Your task to perform on an android device: turn notification dots off Image 0: 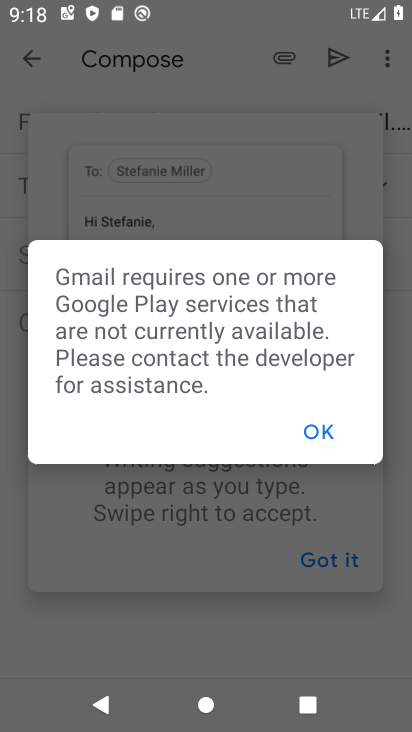
Step 0: click (327, 432)
Your task to perform on an android device: turn notification dots off Image 1: 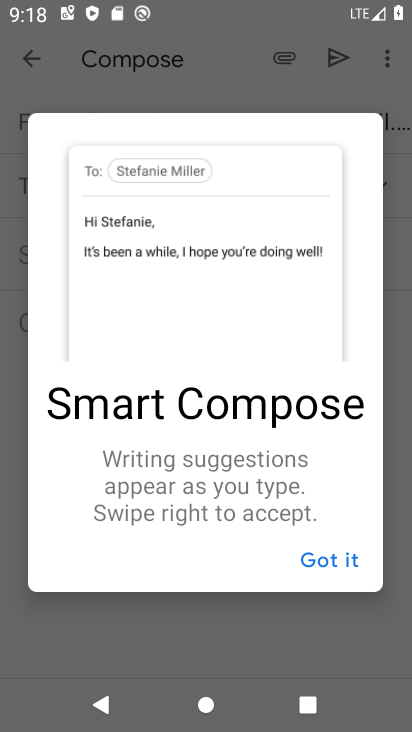
Step 1: press home button
Your task to perform on an android device: turn notification dots off Image 2: 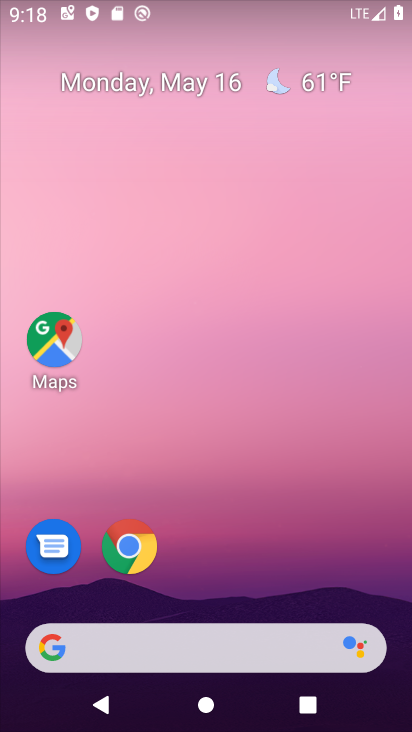
Step 2: drag from (337, 551) to (283, 142)
Your task to perform on an android device: turn notification dots off Image 3: 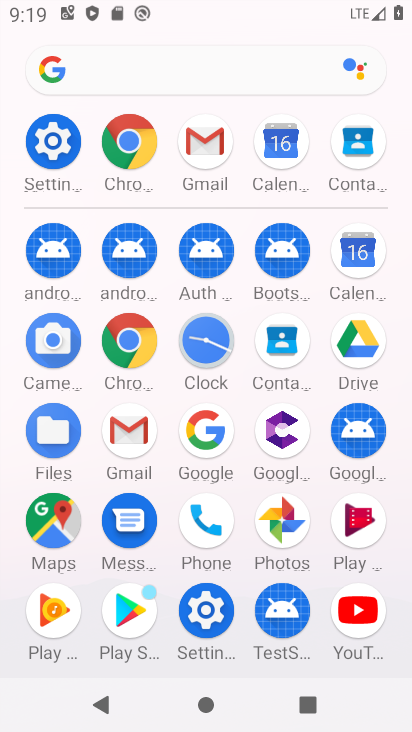
Step 3: click (220, 608)
Your task to perform on an android device: turn notification dots off Image 4: 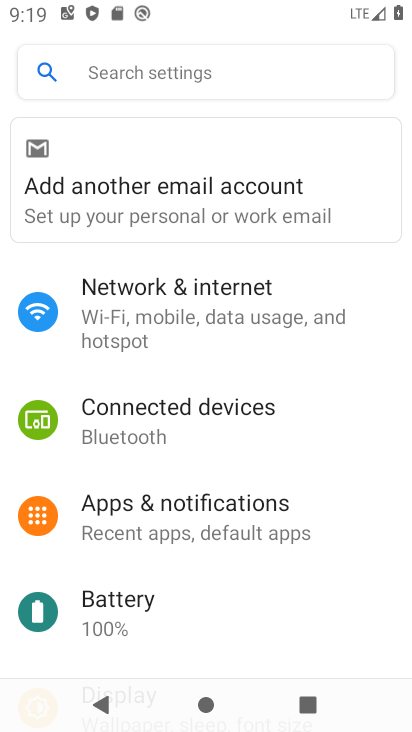
Step 4: click (211, 509)
Your task to perform on an android device: turn notification dots off Image 5: 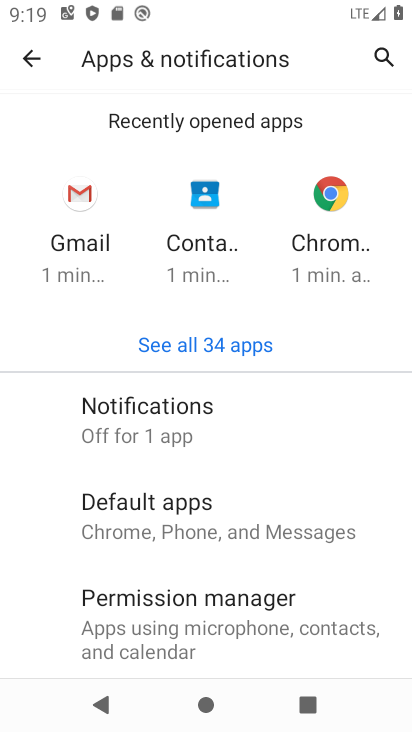
Step 5: click (196, 426)
Your task to perform on an android device: turn notification dots off Image 6: 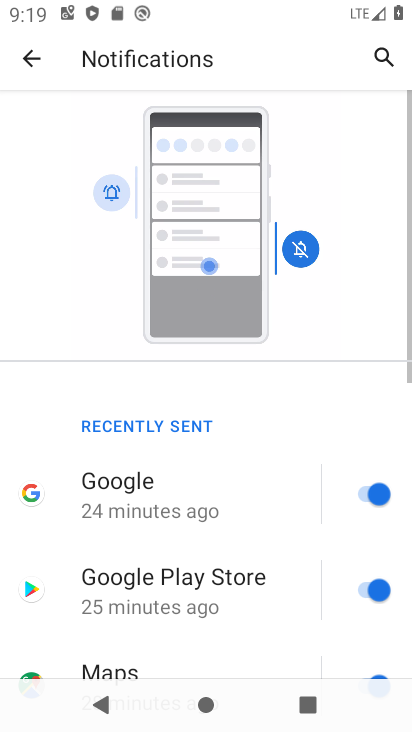
Step 6: drag from (271, 544) to (221, 193)
Your task to perform on an android device: turn notification dots off Image 7: 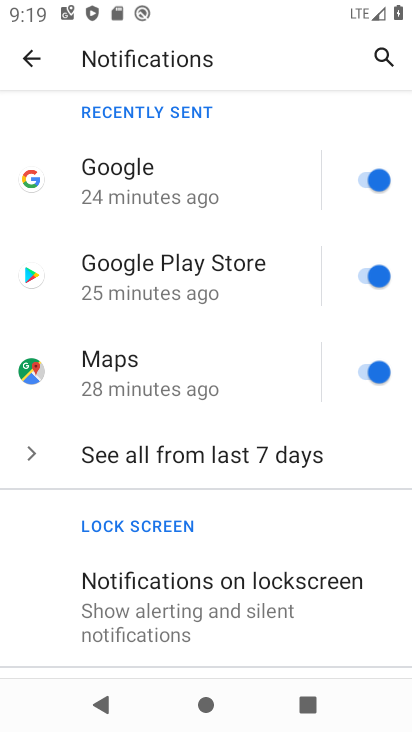
Step 7: drag from (261, 533) to (181, 298)
Your task to perform on an android device: turn notification dots off Image 8: 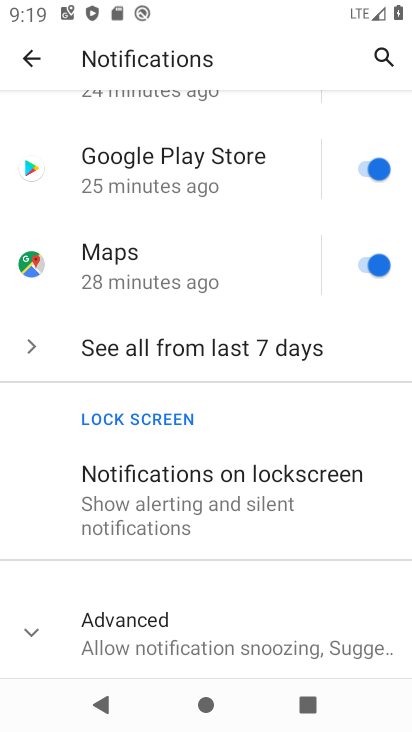
Step 8: click (62, 631)
Your task to perform on an android device: turn notification dots off Image 9: 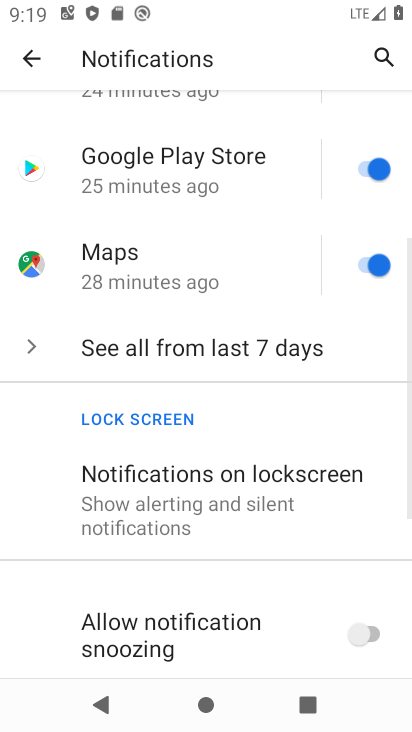
Step 9: drag from (320, 580) to (277, 250)
Your task to perform on an android device: turn notification dots off Image 10: 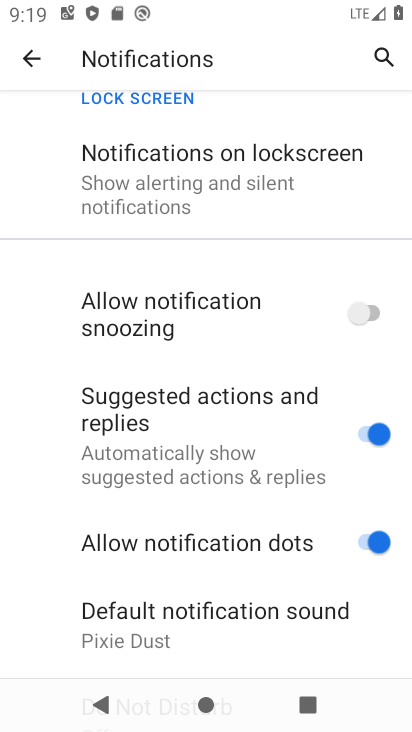
Step 10: click (375, 544)
Your task to perform on an android device: turn notification dots off Image 11: 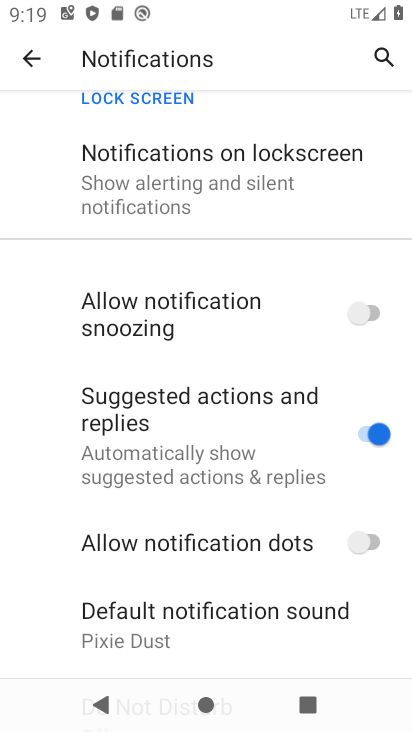
Step 11: task complete